Your task to perform on an android device: What's the latest video from Gameranx? Image 0: 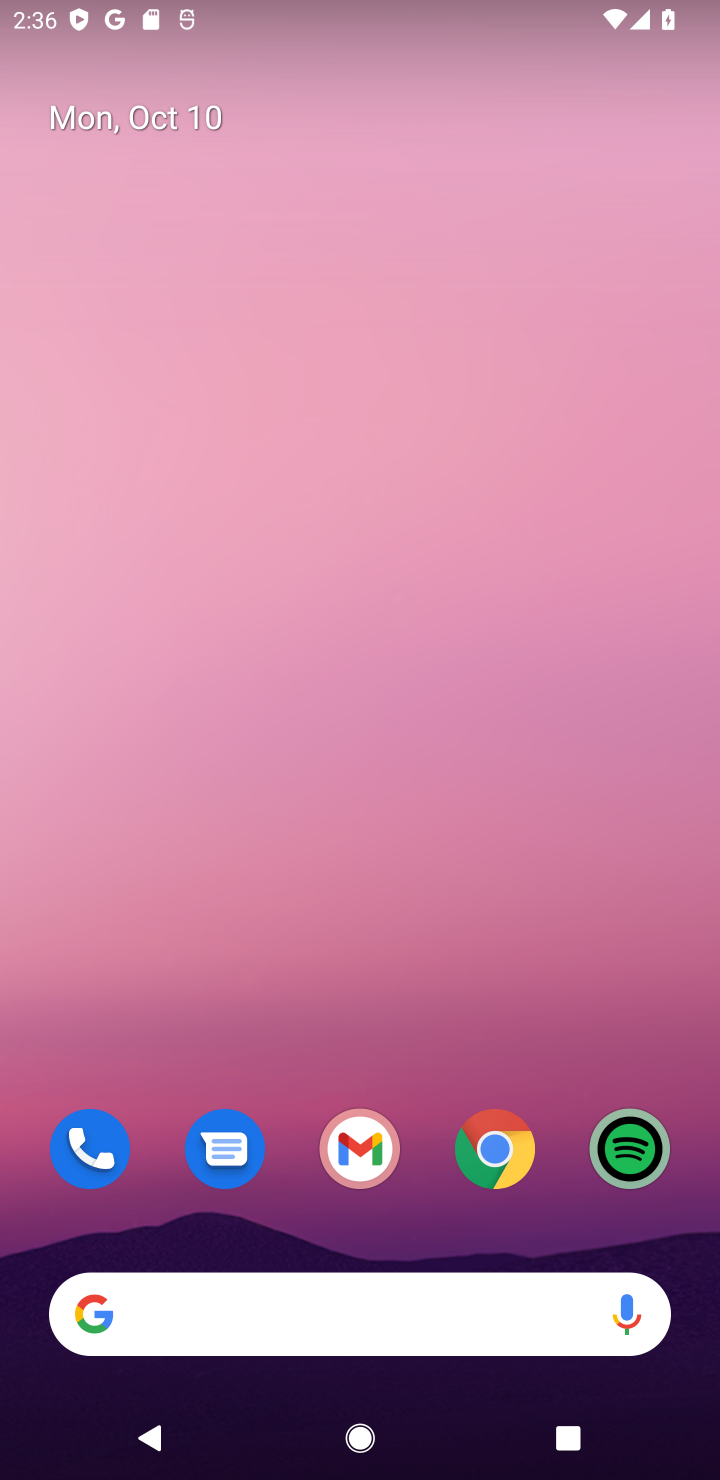
Step 0: click (417, 1246)
Your task to perform on an android device: What's the latest video from Gameranx? Image 1: 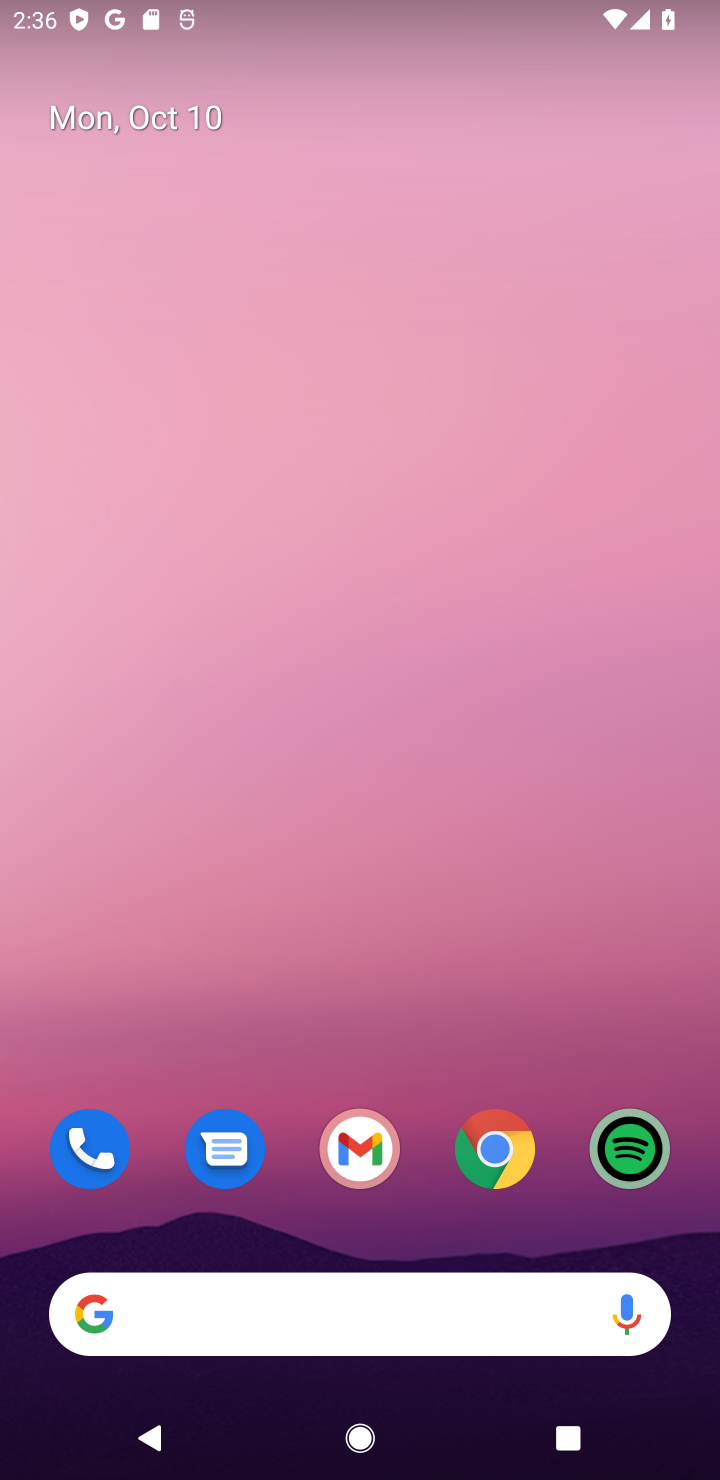
Step 1: click (370, 1298)
Your task to perform on an android device: What's the latest video from Gameranx? Image 2: 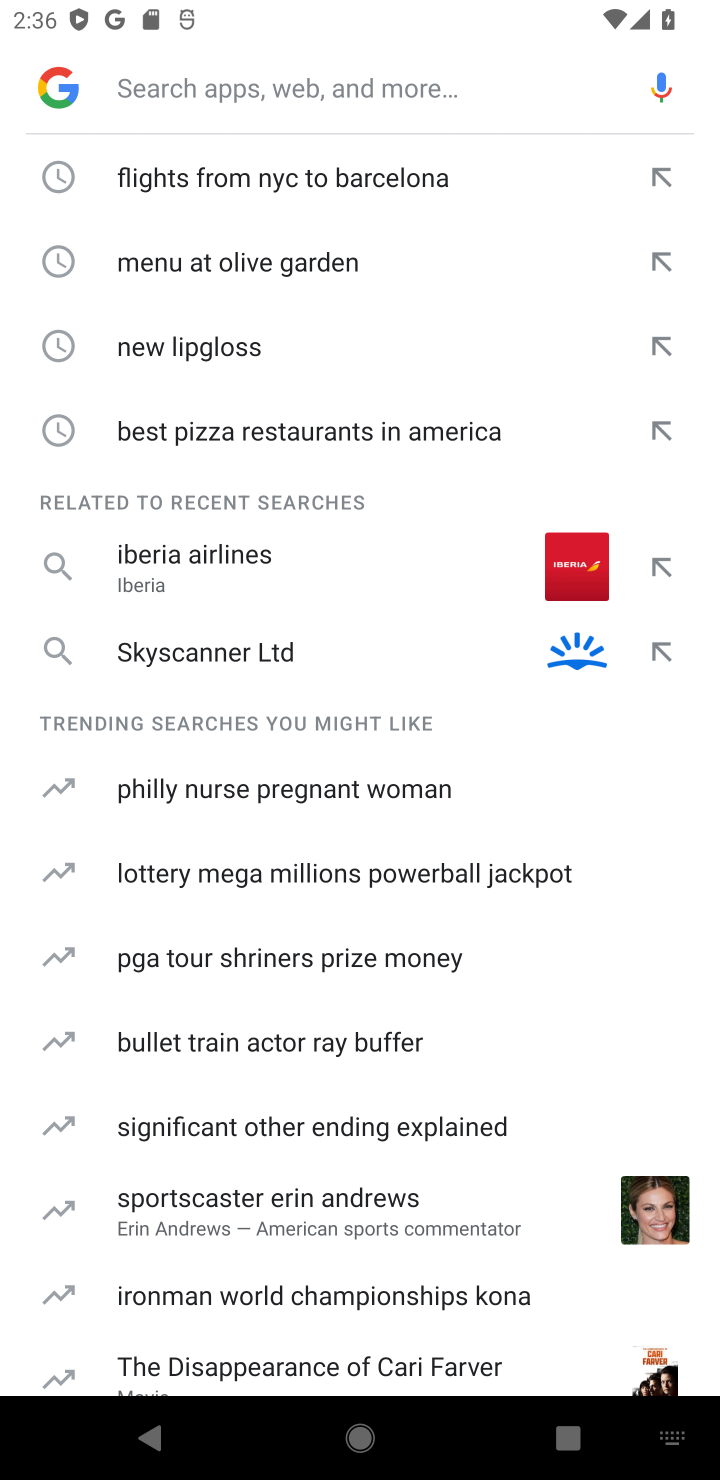
Step 2: type "What's the latest video from Gameranx"
Your task to perform on an android device: What's the latest video from Gameranx? Image 3: 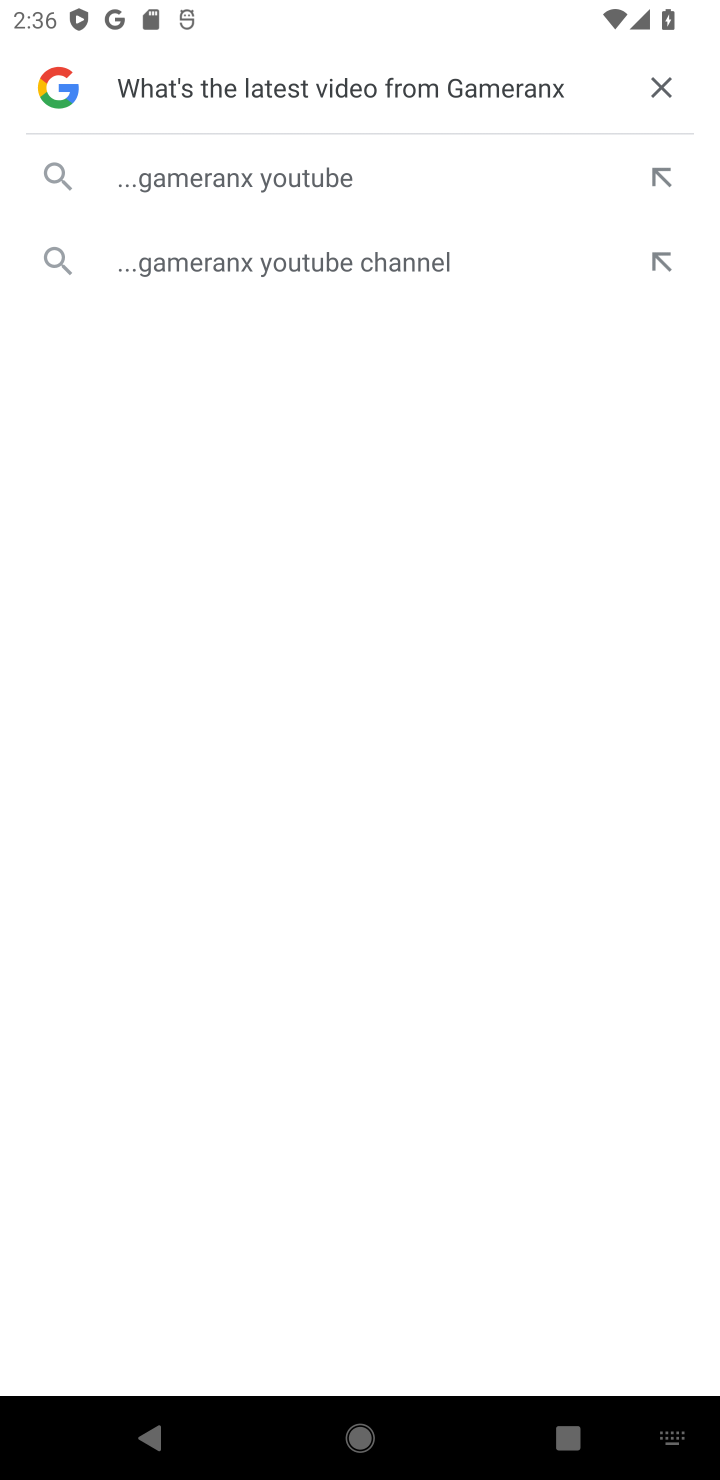
Step 3: click (199, 182)
Your task to perform on an android device: What's the latest video from Gameranx? Image 4: 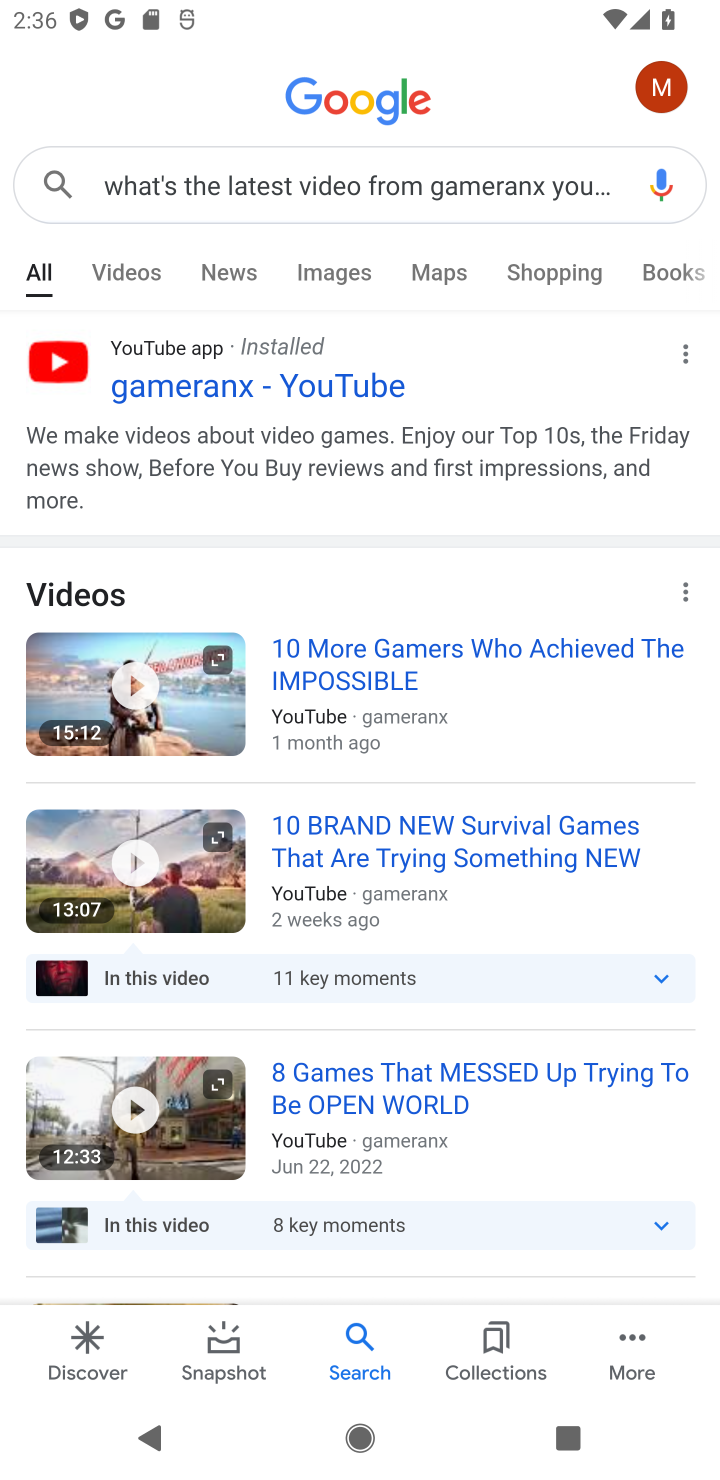
Step 4: task complete